Your task to perform on an android device: delete location history Image 0: 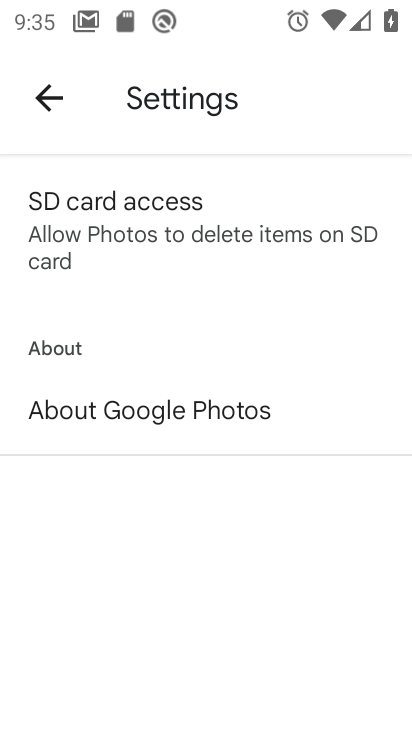
Step 0: press home button
Your task to perform on an android device: delete location history Image 1: 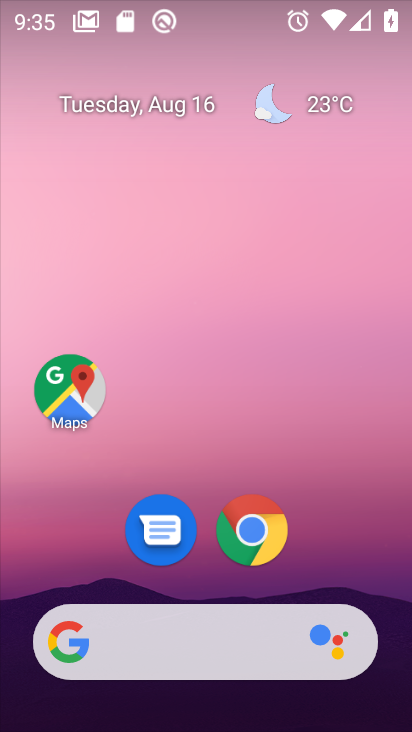
Step 1: drag from (338, 514) to (341, 124)
Your task to perform on an android device: delete location history Image 2: 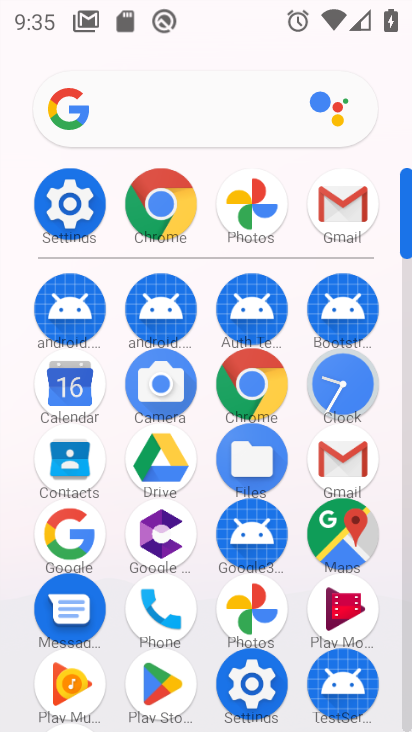
Step 2: click (334, 517)
Your task to perform on an android device: delete location history Image 3: 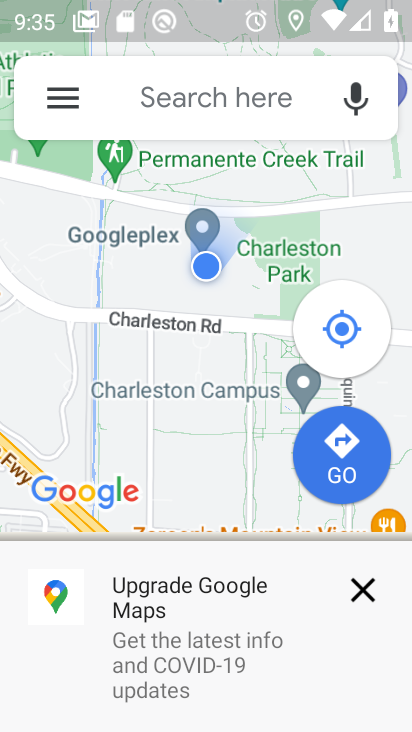
Step 3: click (54, 106)
Your task to perform on an android device: delete location history Image 4: 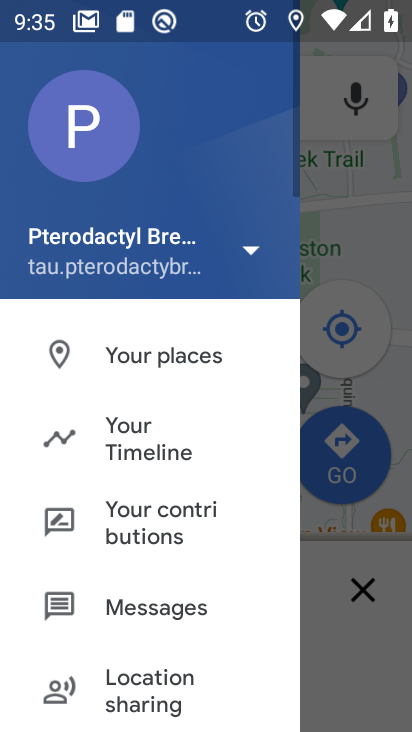
Step 4: drag from (171, 609) to (237, 278)
Your task to perform on an android device: delete location history Image 5: 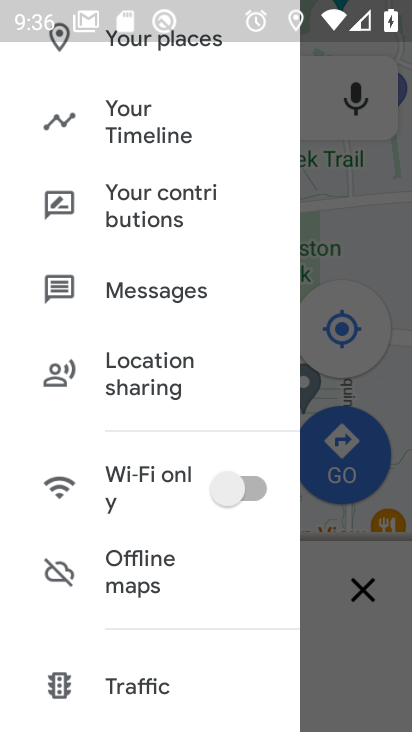
Step 5: drag from (162, 583) to (267, 199)
Your task to perform on an android device: delete location history Image 6: 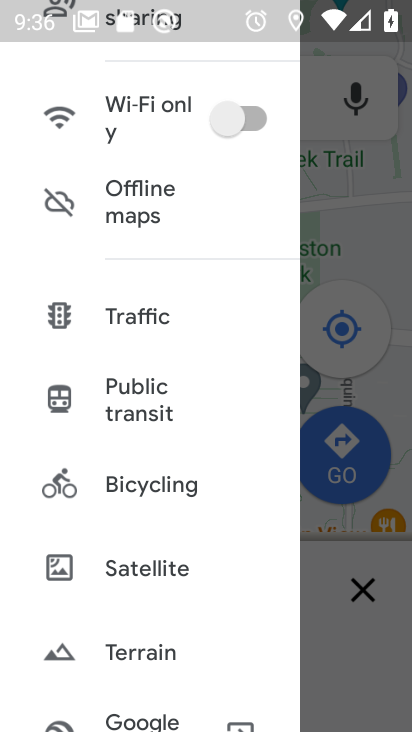
Step 6: drag from (144, 601) to (246, 202)
Your task to perform on an android device: delete location history Image 7: 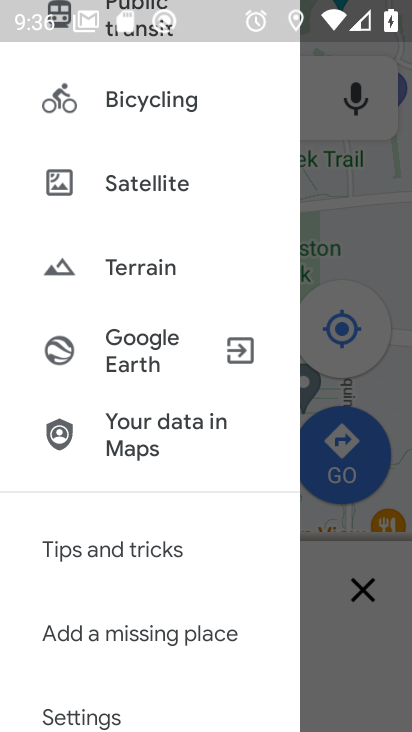
Step 7: click (108, 713)
Your task to perform on an android device: delete location history Image 8: 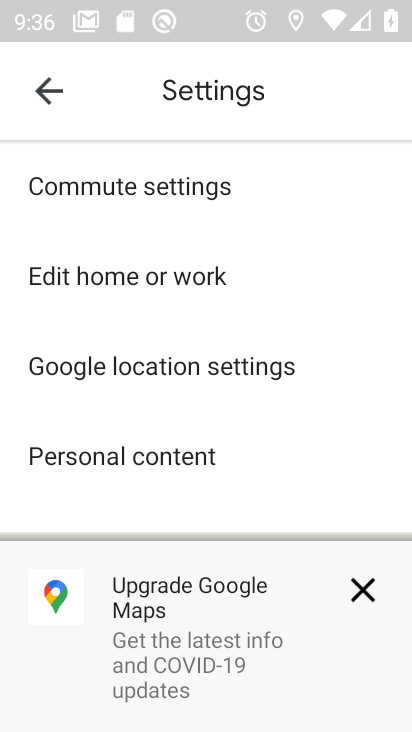
Step 8: drag from (169, 483) to (280, 212)
Your task to perform on an android device: delete location history Image 9: 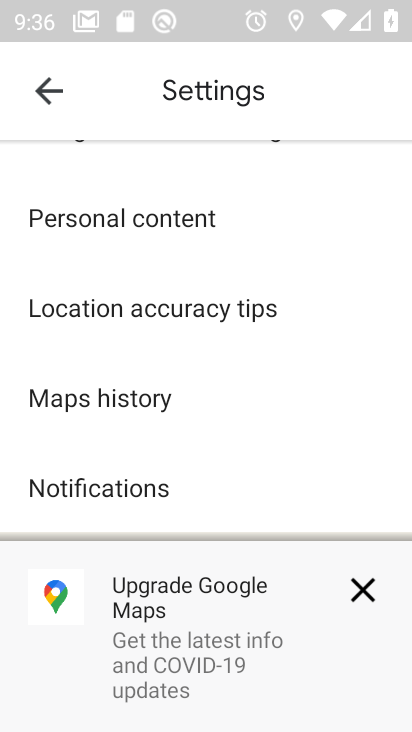
Step 9: click (103, 395)
Your task to perform on an android device: delete location history Image 10: 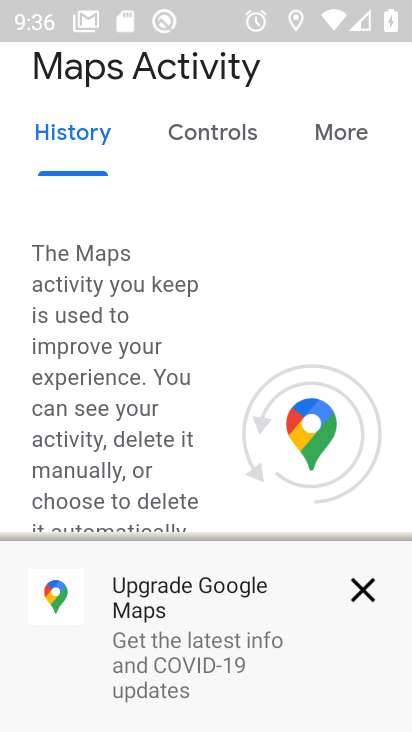
Step 10: drag from (160, 456) to (257, 99)
Your task to perform on an android device: delete location history Image 11: 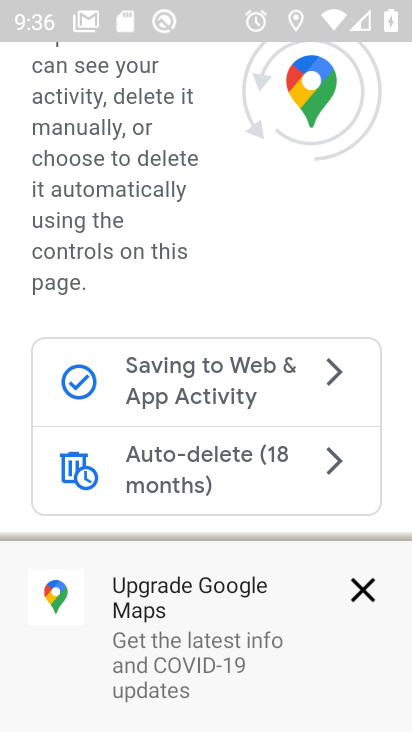
Step 11: drag from (255, 294) to (325, 71)
Your task to perform on an android device: delete location history Image 12: 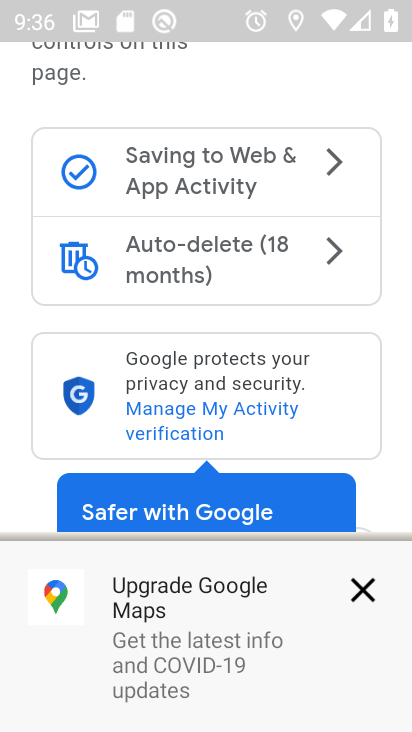
Step 12: drag from (383, 483) to (398, 129)
Your task to perform on an android device: delete location history Image 13: 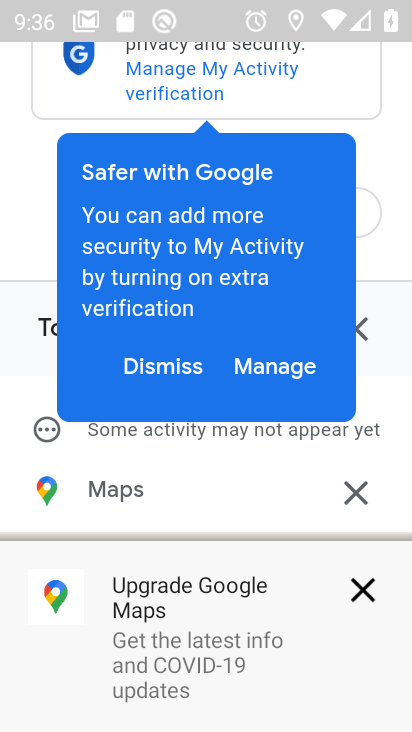
Step 13: click (192, 370)
Your task to perform on an android device: delete location history Image 14: 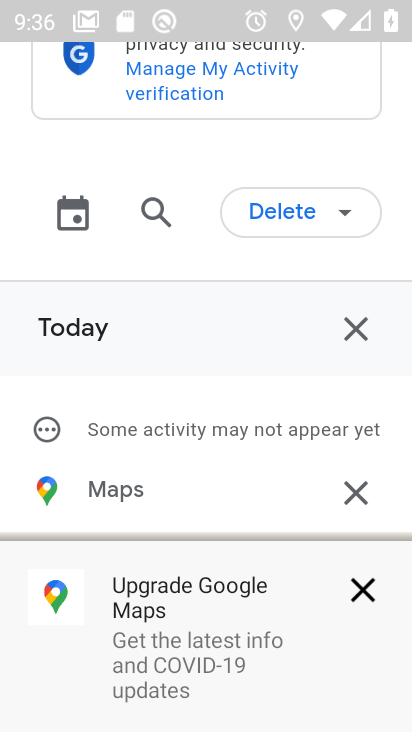
Step 14: click (367, 209)
Your task to perform on an android device: delete location history Image 15: 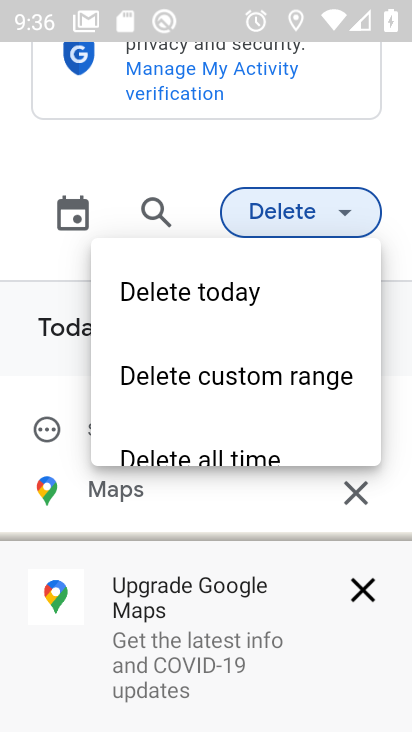
Step 15: click (180, 449)
Your task to perform on an android device: delete location history Image 16: 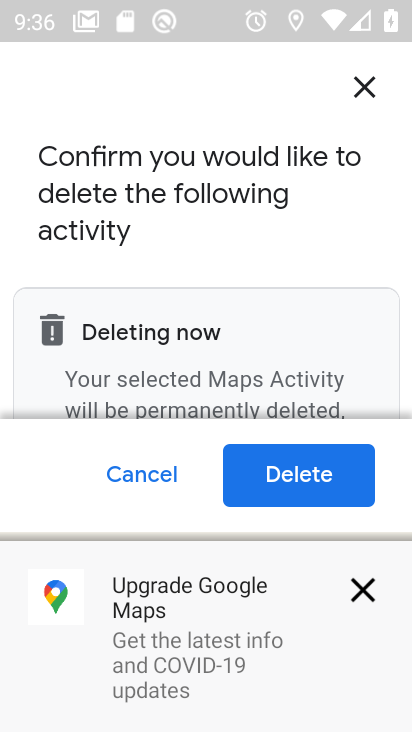
Step 16: click (265, 465)
Your task to perform on an android device: delete location history Image 17: 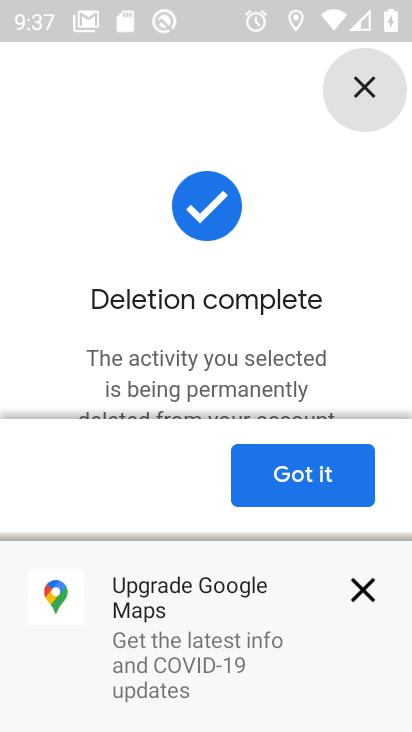
Step 17: task complete